Your task to perform on an android device: make emails show in primary in the gmail app Image 0: 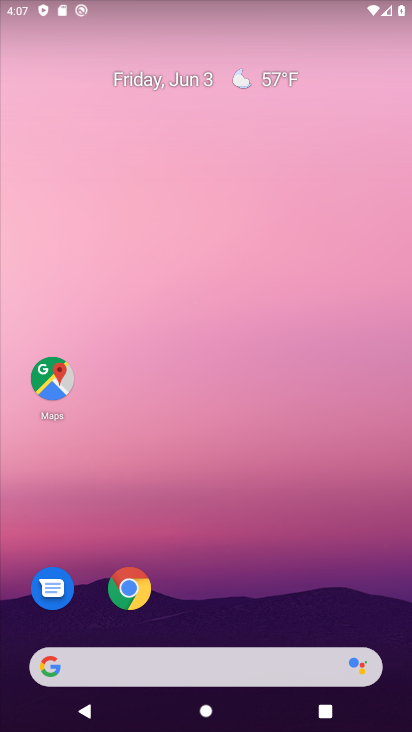
Step 0: drag from (248, 605) to (214, 288)
Your task to perform on an android device: make emails show in primary in the gmail app Image 1: 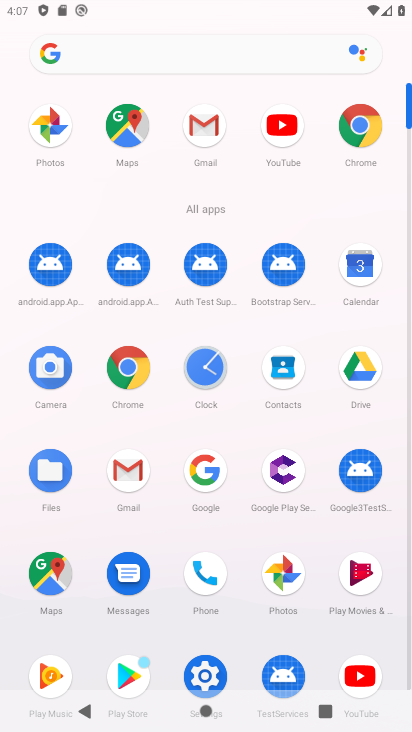
Step 1: click (205, 126)
Your task to perform on an android device: make emails show in primary in the gmail app Image 2: 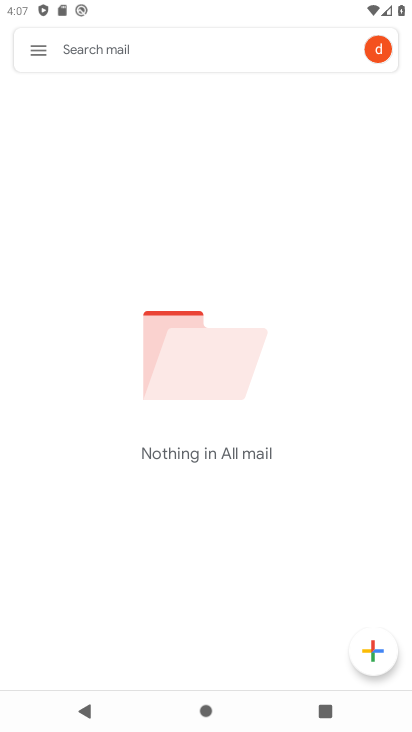
Step 2: click (41, 56)
Your task to perform on an android device: make emails show in primary in the gmail app Image 3: 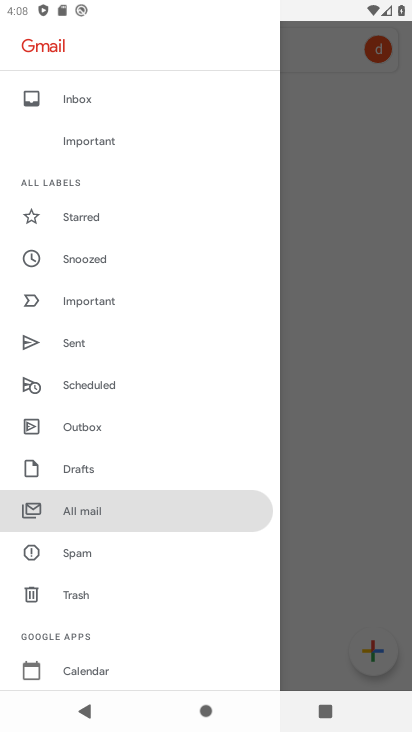
Step 3: drag from (98, 622) to (108, 178)
Your task to perform on an android device: make emails show in primary in the gmail app Image 4: 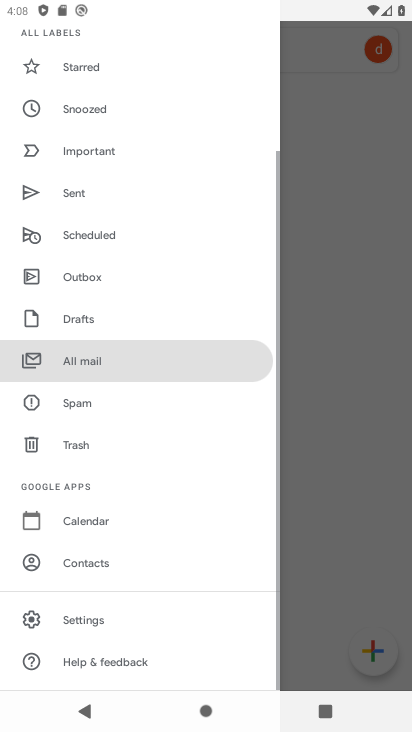
Step 4: click (133, 614)
Your task to perform on an android device: make emails show in primary in the gmail app Image 5: 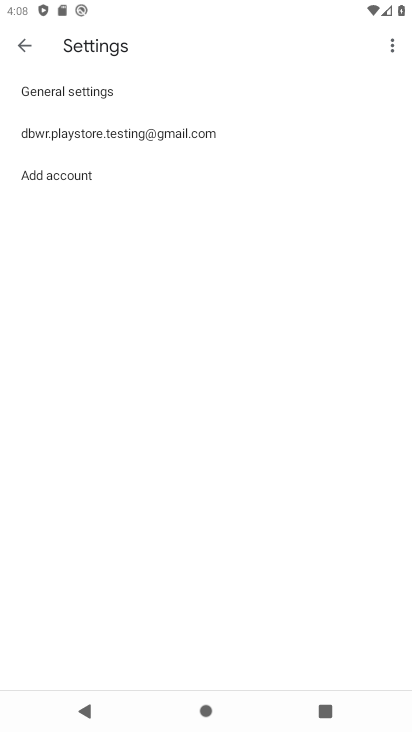
Step 5: click (185, 137)
Your task to perform on an android device: make emails show in primary in the gmail app Image 6: 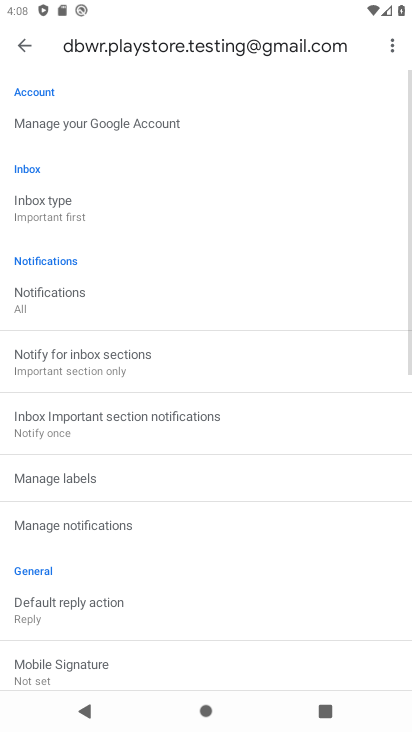
Step 6: click (161, 213)
Your task to perform on an android device: make emails show in primary in the gmail app Image 7: 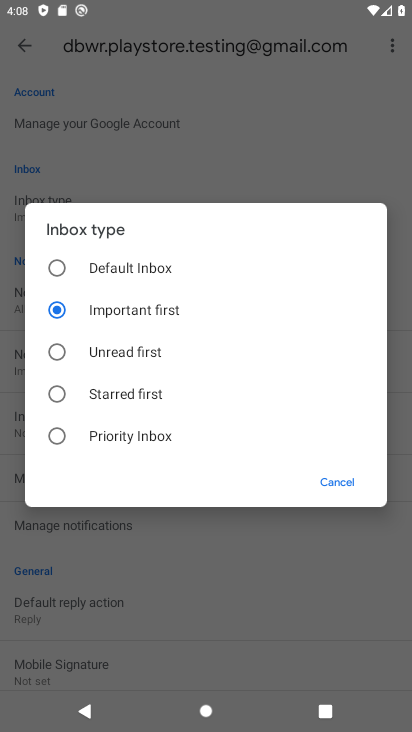
Step 7: click (152, 259)
Your task to perform on an android device: make emails show in primary in the gmail app Image 8: 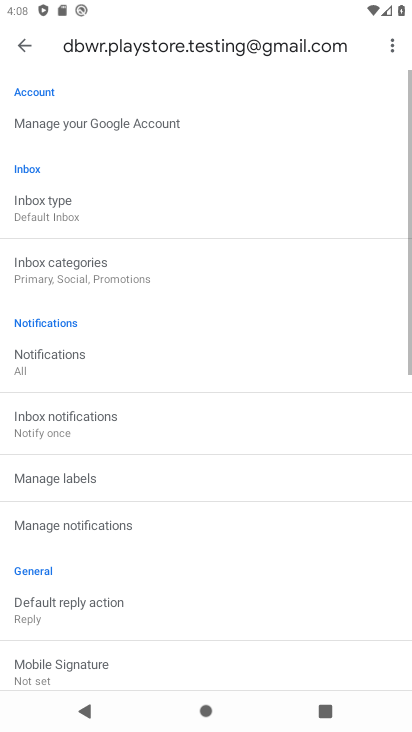
Step 8: task complete